Your task to perform on an android device: Open calendar and show me the fourth week of next month Image 0: 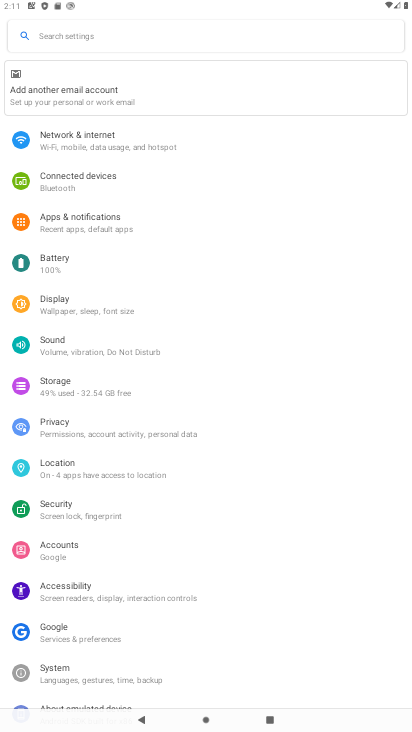
Step 0: press home button
Your task to perform on an android device: Open calendar and show me the fourth week of next month Image 1: 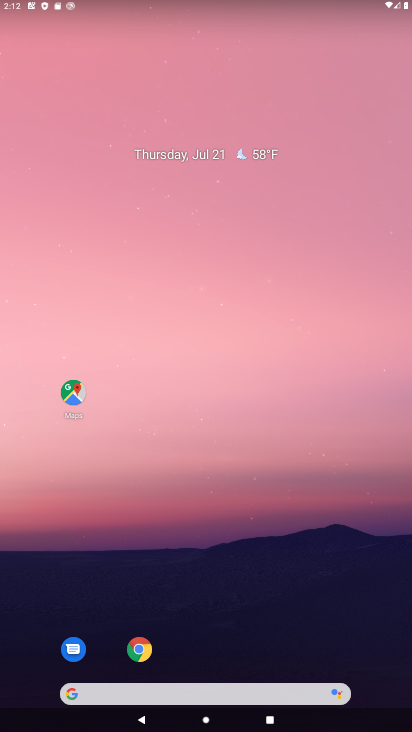
Step 1: drag from (218, 639) to (199, 157)
Your task to perform on an android device: Open calendar and show me the fourth week of next month Image 2: 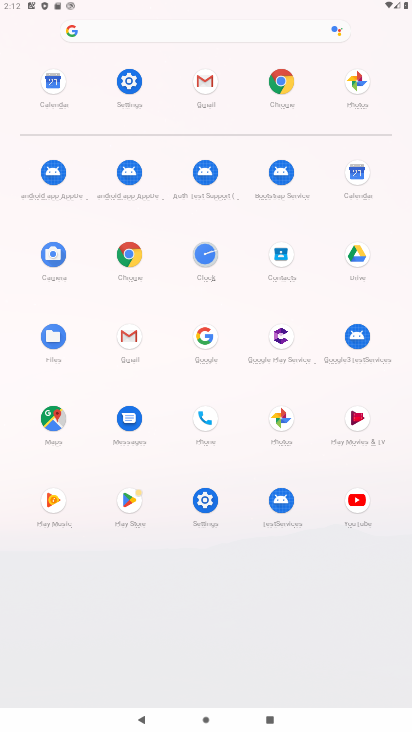
Step 2: click (47, 87)
Your task to perform on an android device: Open calendar and show me the fourth week of next month Image 3: 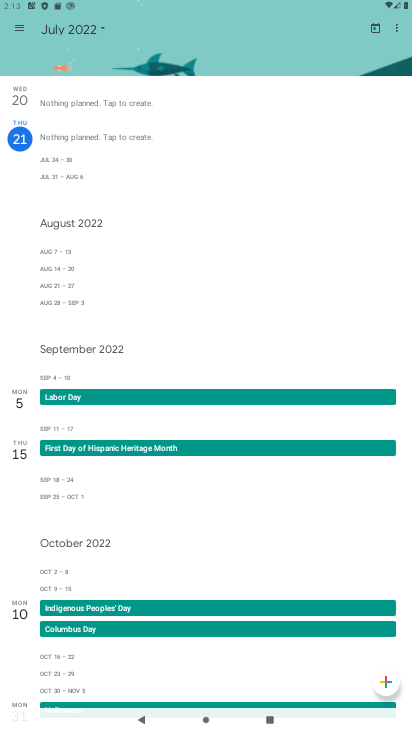
Step 3: click (98, 39)
Your task to perform on an android device: Open calendar and show me the fourth week of next month Image 4: 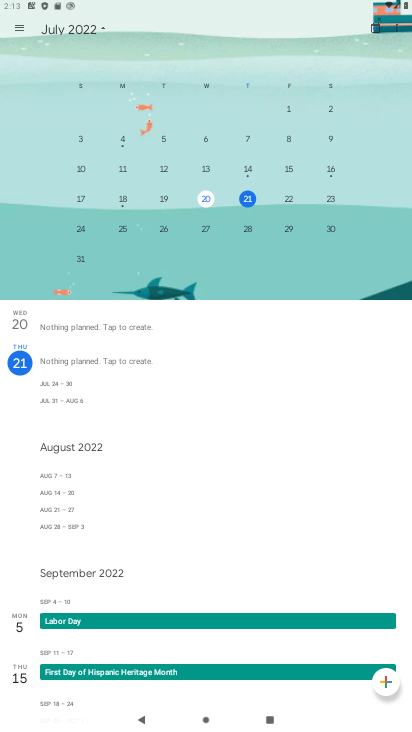
Step 4: drag from (366, 246) to (127, 265)
Your task to perform on an android device: Open calendar and show me the fourth week of next month Image 5: 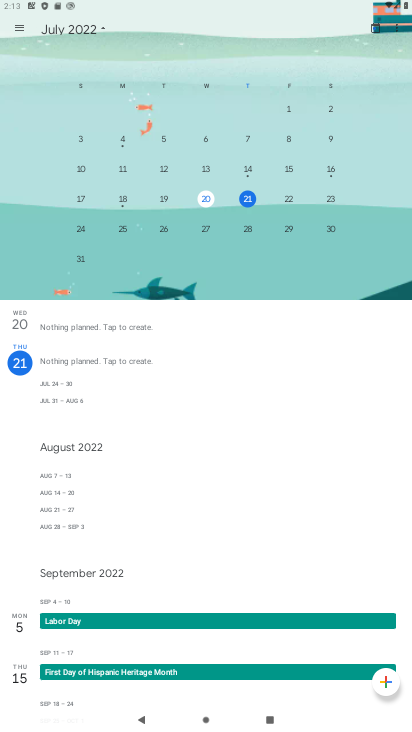
Step 5: click (360, 219)
Your task to perform on an android device: Open calendar and show me the fourth week of next month Image 6: 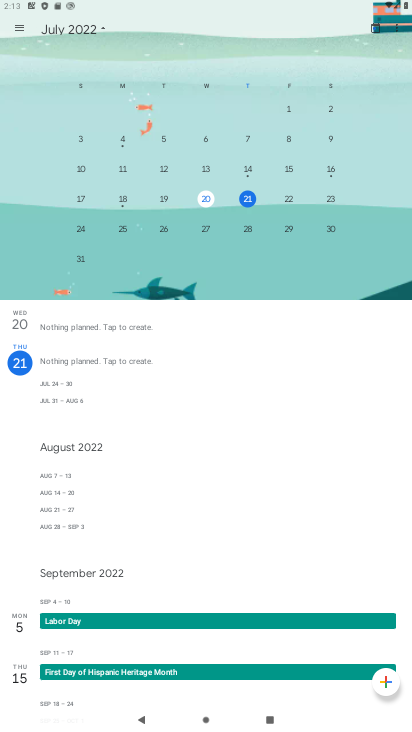
Step 6: drag from (360, 219) to (5, 227)
Your task to perform on an android device: Open calendar and show me the fourth week of next month Image 7: 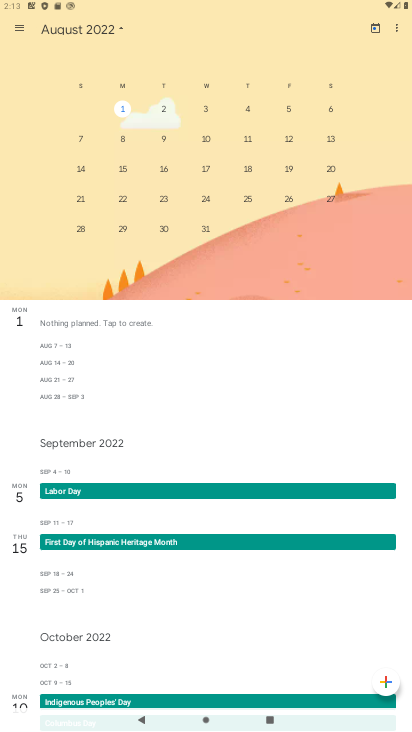
Step 7: click (164, 203)
Your task to perform on an android device: Open calendar and show me the fourth week of next month Image 8: 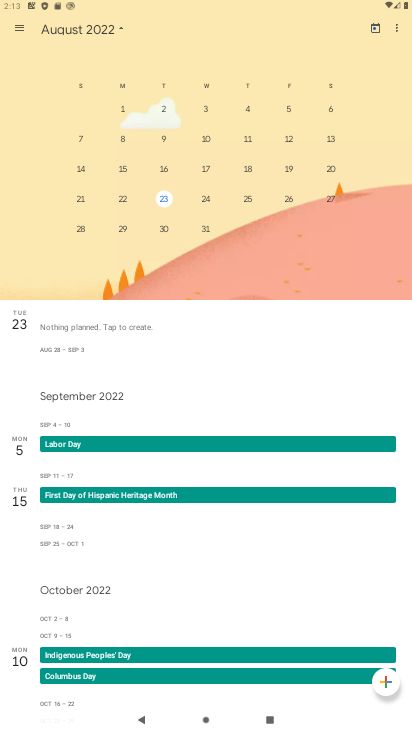
Step 8: task complete